Your task to perform on an android device: turn on data saver in the chrome app Image 0: 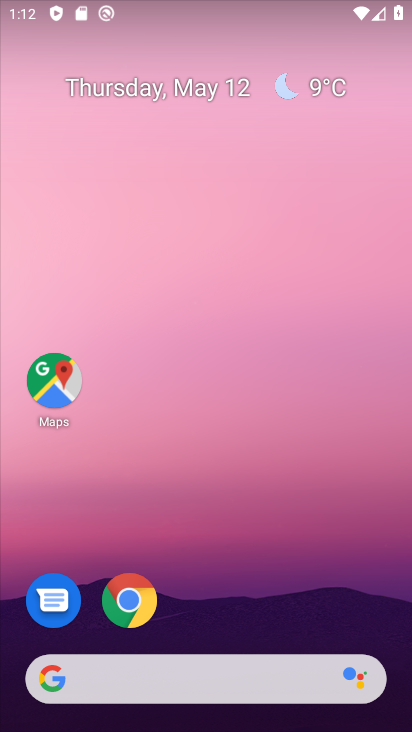
Step 0: press home button
Your task to perform on an android device: turn on data saver in the chrome app Image 1: 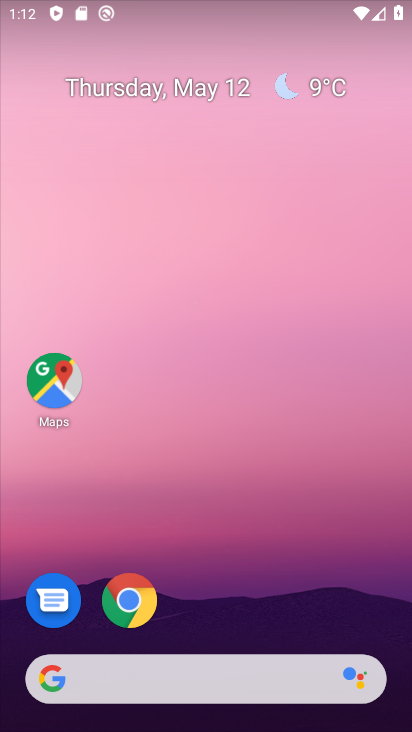
Step 1: drag from (294, 472) to (358, 96)
Your task to perform on an android device: turn on data saver in the chrome app Image 2: 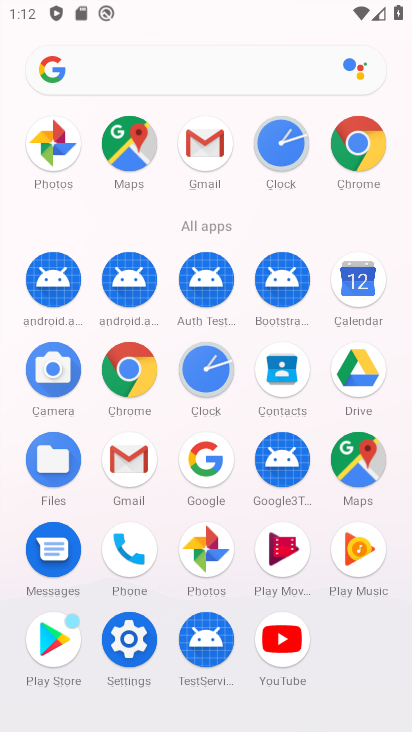
Step 2: click (373, 135)
Your task to perform on an android device: turn on data saver in the chrome app Image 3: 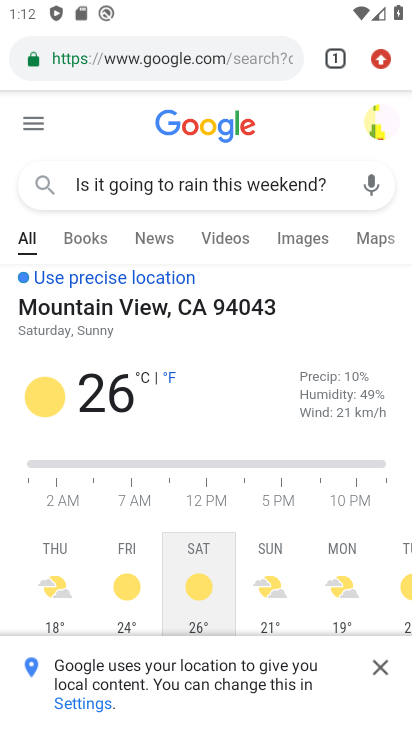
Step 3: drag from (382, 62) to (201, 627)
Your task to perform on an android device: turn on data saver in the chrome app Image 4: 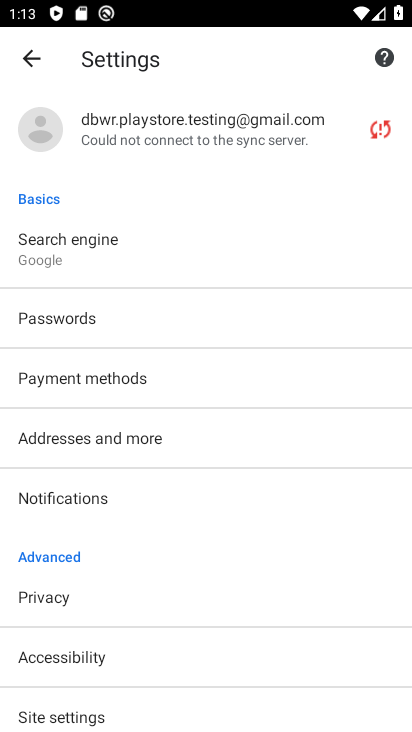
Step 4: drag from (227, 634) to (200, 382)
Your task to perform on an android device: turn on data saver in the chrome app Image 5: 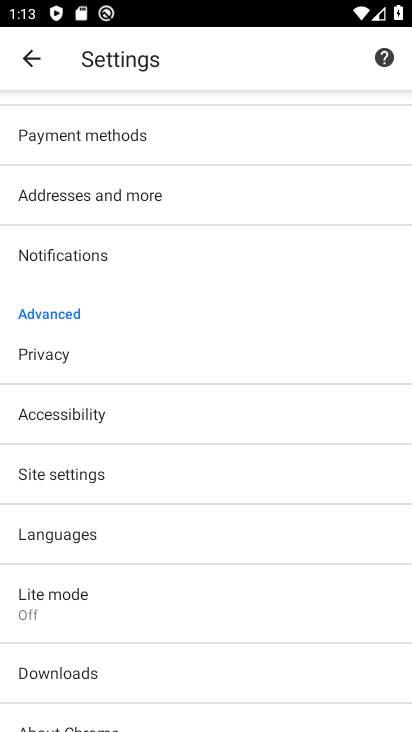
Step 5: click (106, 599)
Your task to perform on an android device: turn on data saver in the chrome app Image 6: 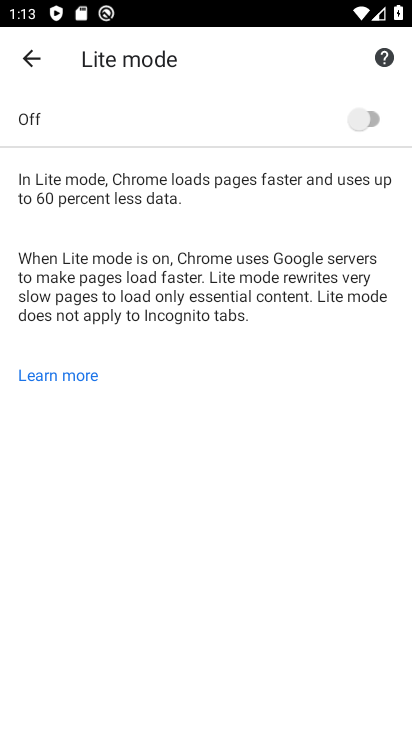
Step 6: click (351, 117)
Your task to perform on an android device: turn on data saver in the chrome app Image 7: 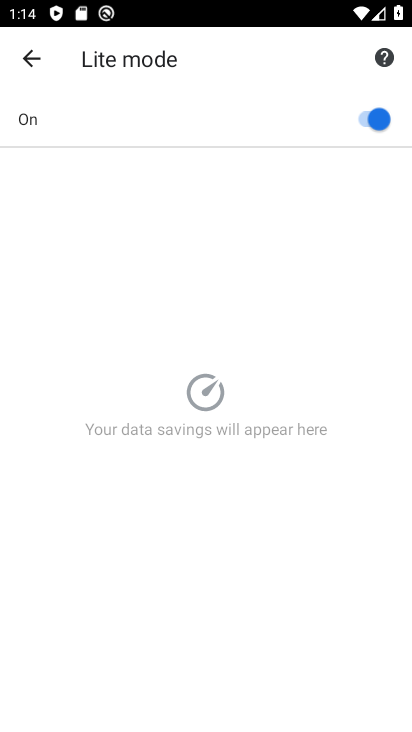
Step 7: task complete